Your task to perform on an android device: Go to Android settings Image 0: 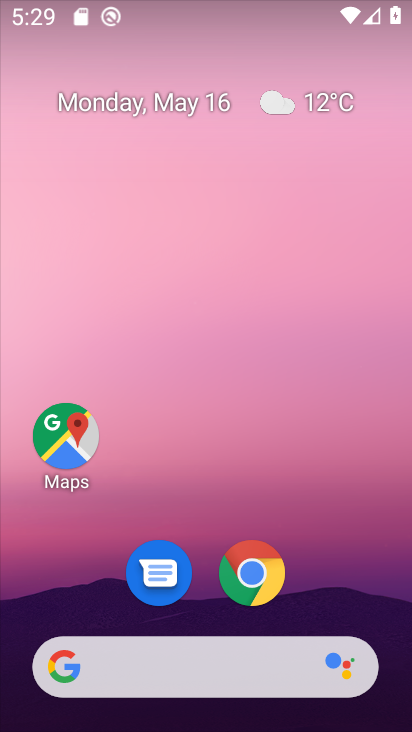
Step 0: drag from (199, 585) to (248, 112)
Your task to perform on an android device: Go to Android settings Image 1: 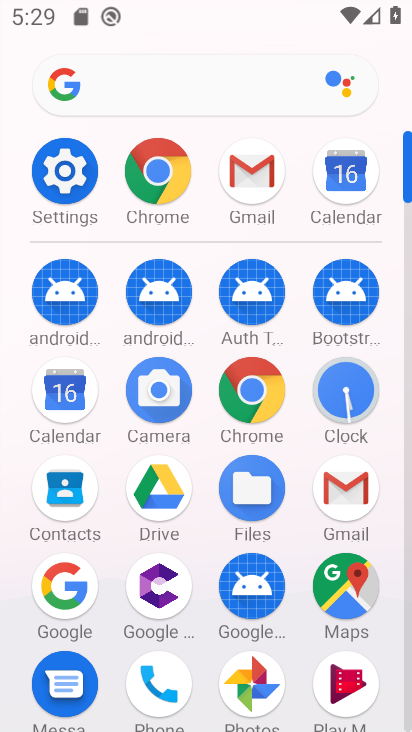
Step 1: click (61, 172)
Your task to perform on an android device: Go to Android settings Image 2: 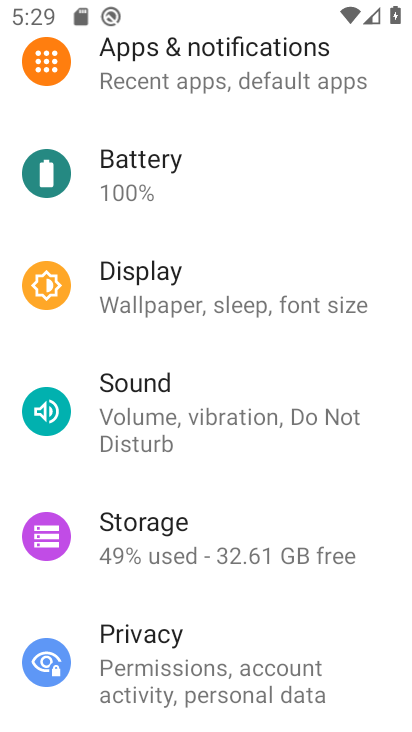
Step 2: drag from (170, 607) to (232, 172)
Your task to perform on an android device: Go to Android settings Image 3: 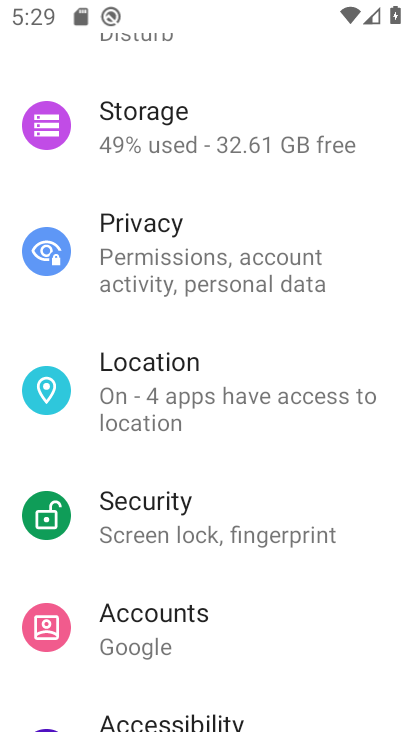
Step 3: drag from (146, 623) to (255, 202)
Your task to perform on an android device: Go to Android settings Image 4: 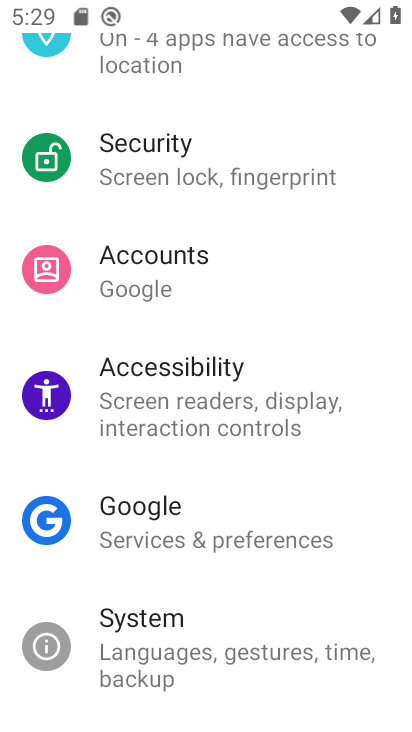
Step 4: click (150, 636)
Your task to perform on an android device: Go to Android settings Image 5: 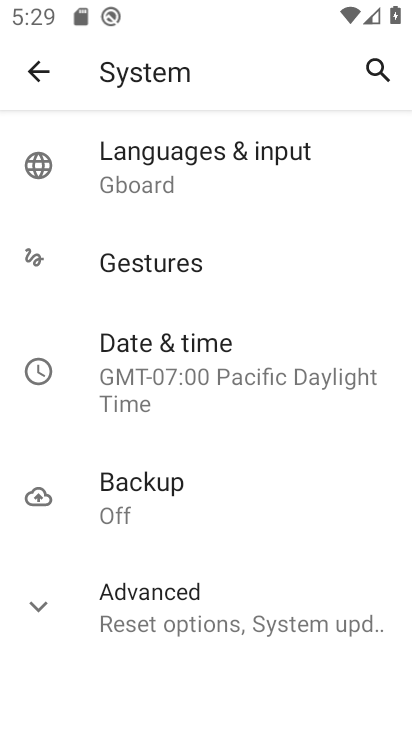
Step 5: click (44, 79)
Your task to perform on an android device: Go to Android settings Image 6: 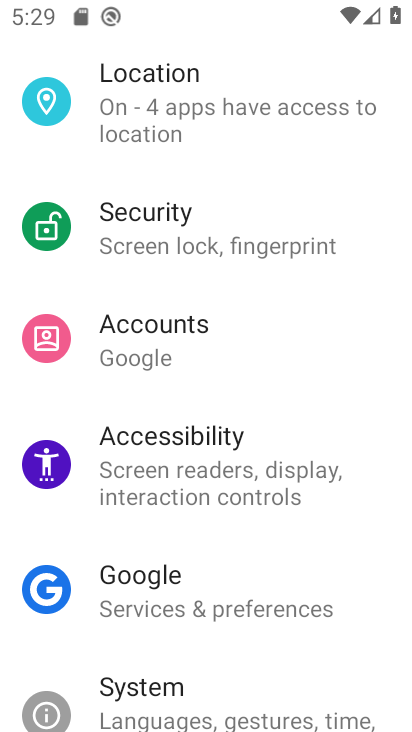
Step 6: drag from (144, 665) to (280, 56)
Your task to perform on an android device: Go to Android settings Image 7: 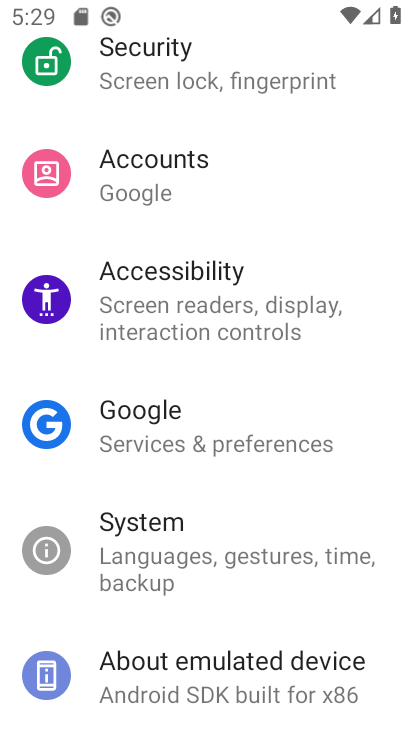
Step 7: click (150, 661)
Your task to perform on an android device: Go to Android settings Image 8: 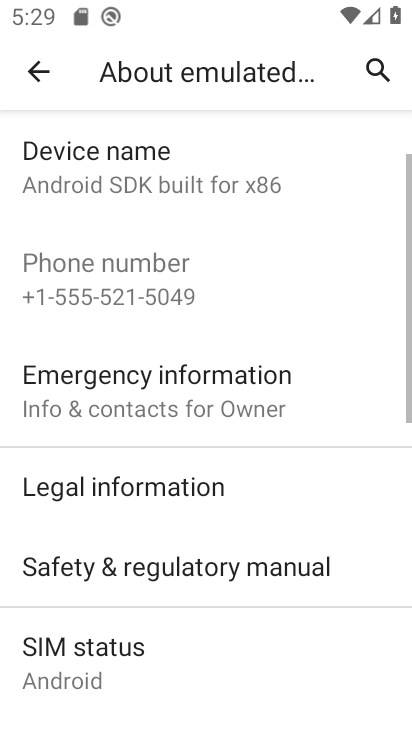
Step 8: drag from (123, 645) to (274, 178)
Your task to perform on an android device: Go to Android settings Image 9: 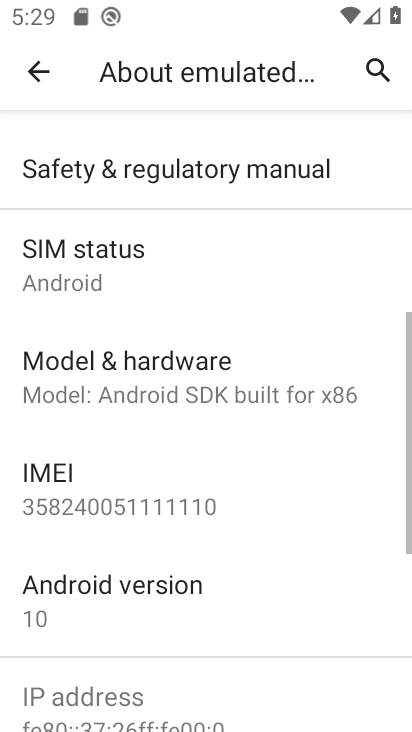
Step 9: click (57, 587)
Your task to perform on an android device: Go to Android settings Image 10: 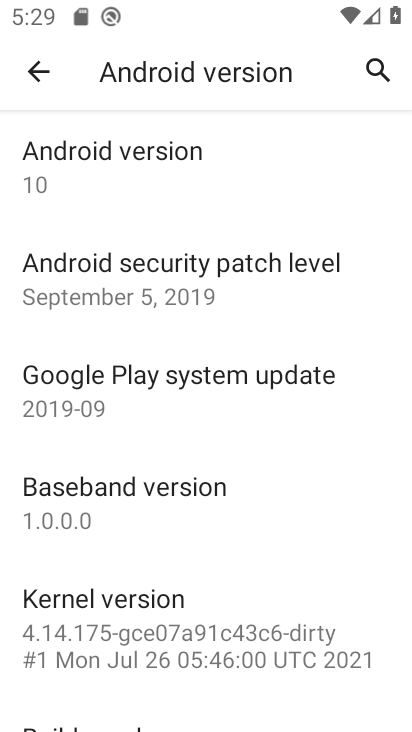
Step 10: task complete